Your task to perform on an android device: turn on wifi Image 0: 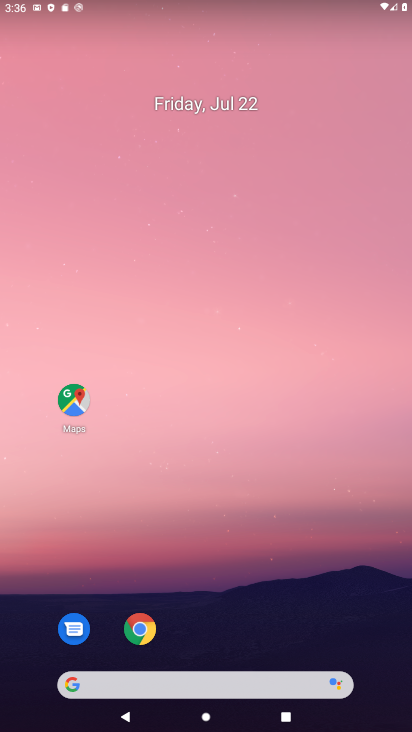
Step 0: drag from (325, 584) to (232, 114)
Your task to perform on an android device: turn on wifi Image 1: 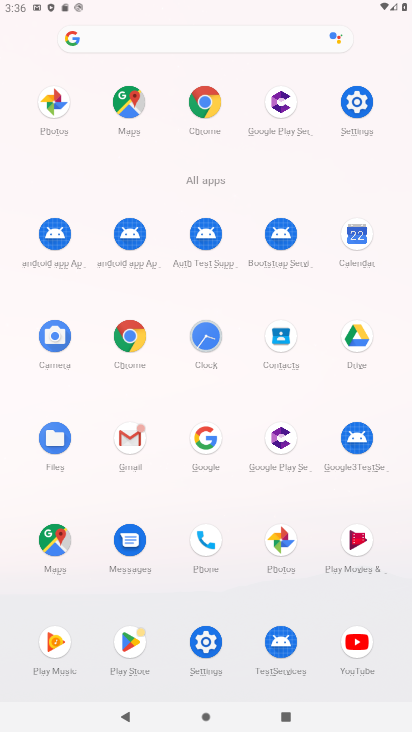
Step 1: click (355, 93)
Your task to perform on an android device: turn on wifi Image 2: 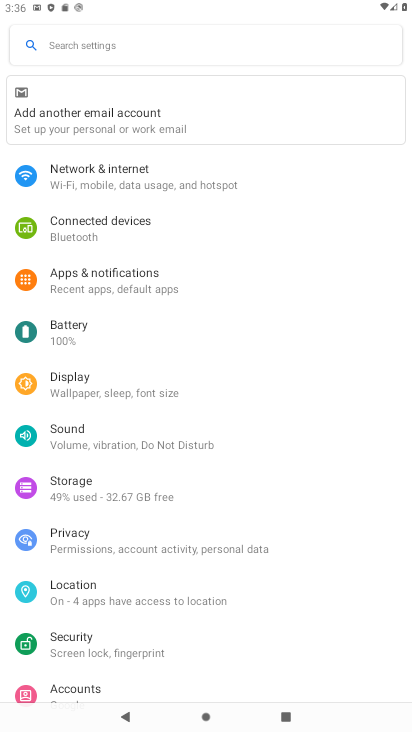
Step 2: click (128, 174)
Your task to perform on an android device: turn on wifi Image 3: 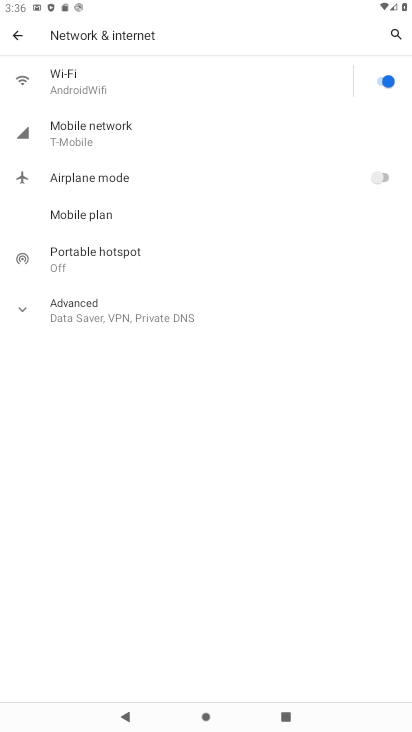
Step 3: task complete